Your task to perform on an android device: install app "Venmo" Image 0: 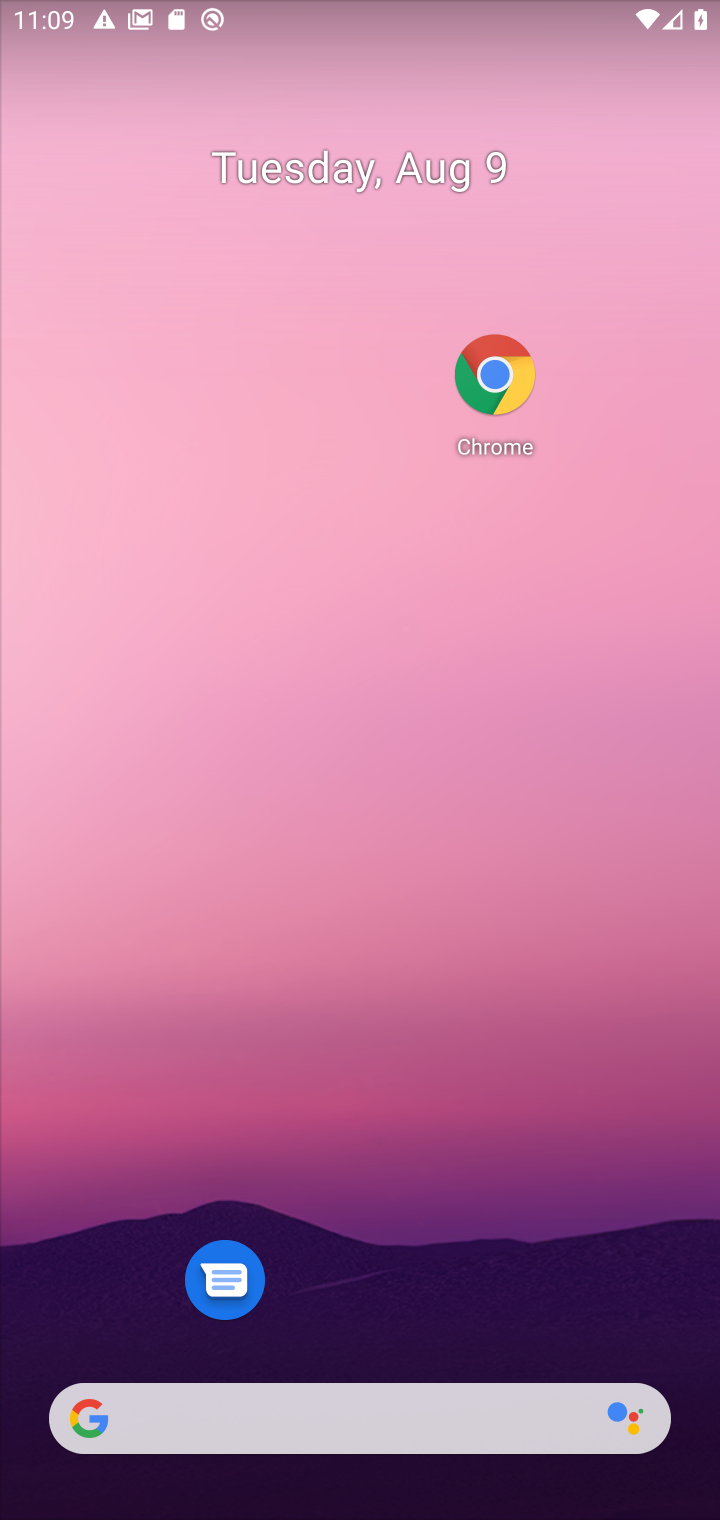
Step 0: drag from (428, 1323) to (704, 2)
Your task to perform on an android device: install app "Venmo" Image 1: 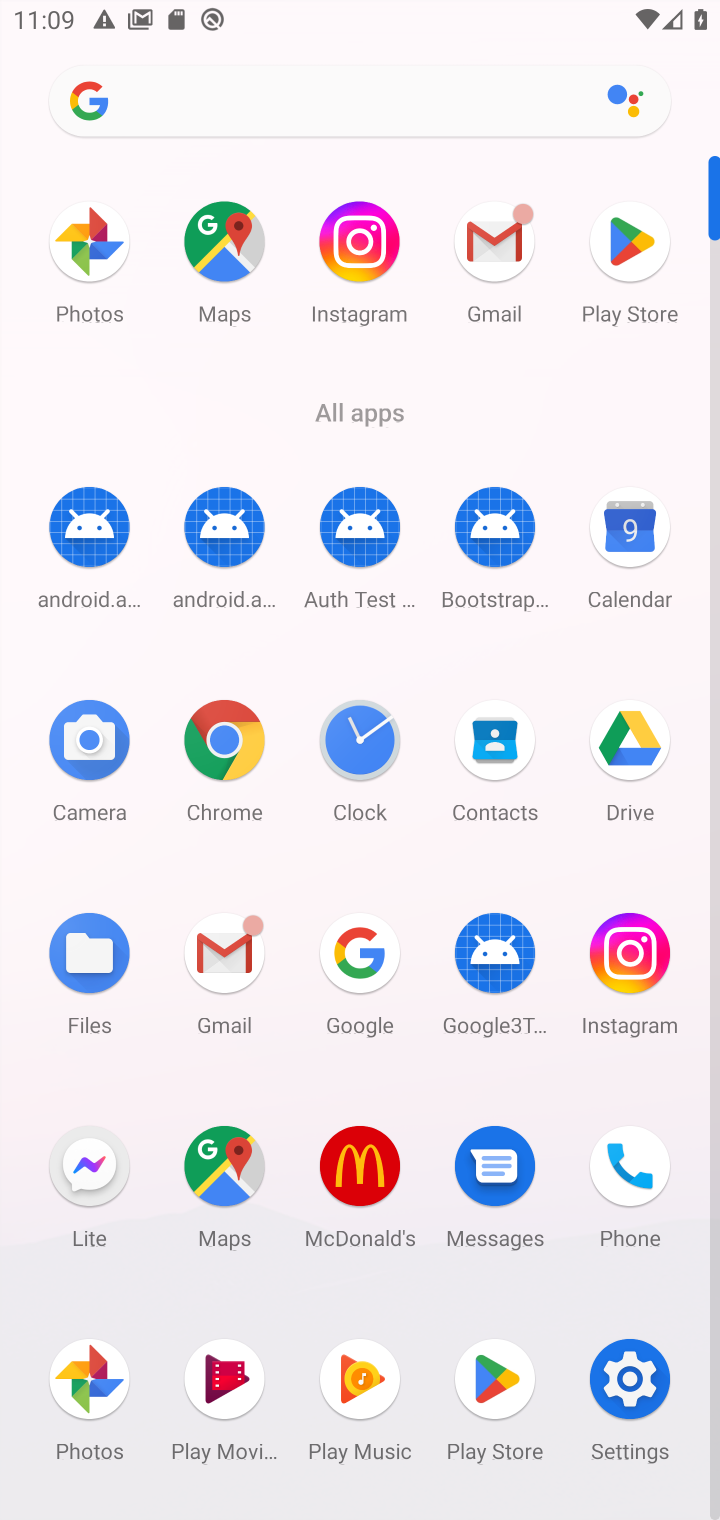
Step 1: click (510, 1366)
Your task to perform on an android device: install app "Venmo" Image 2: 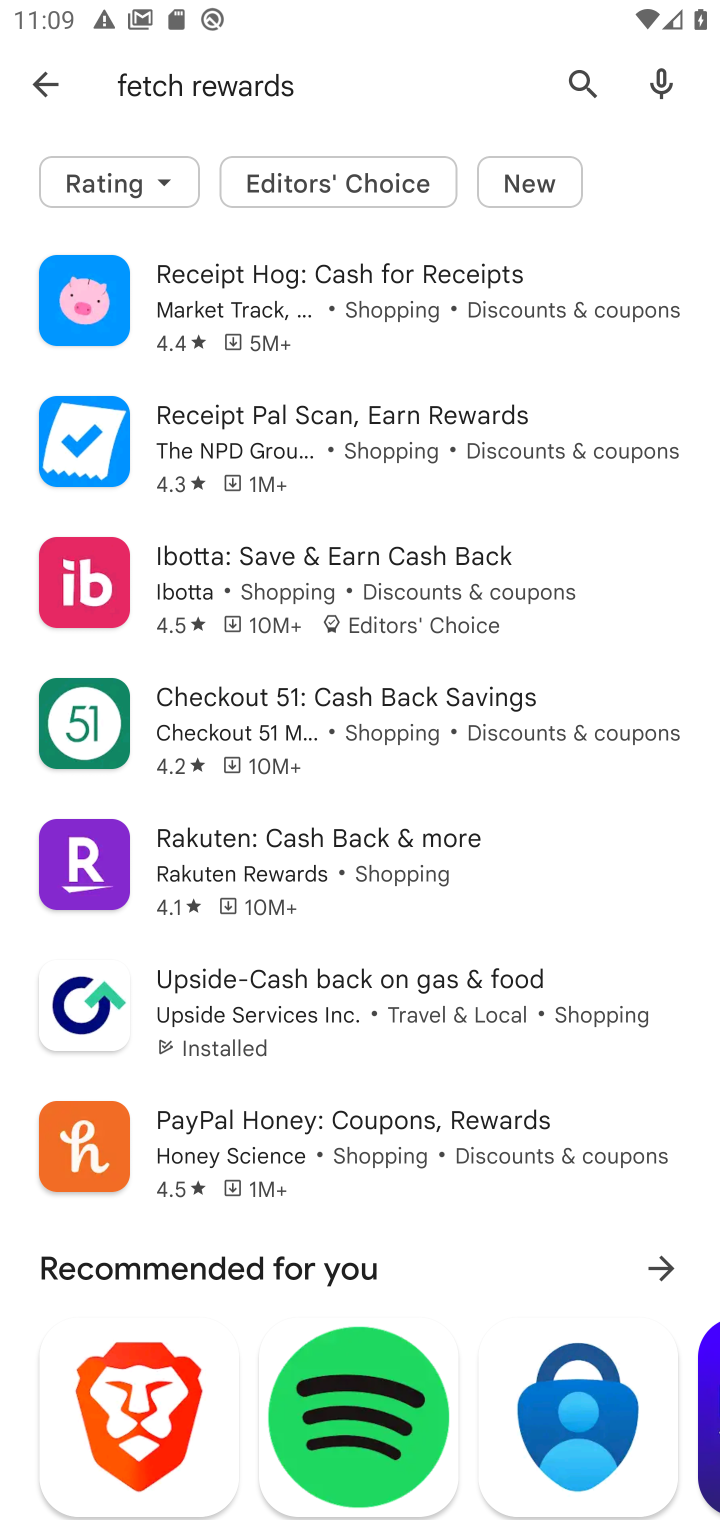
Step 2: click (58, 80)
Your task to perform on an android device: install app "Venmo" Image 3: 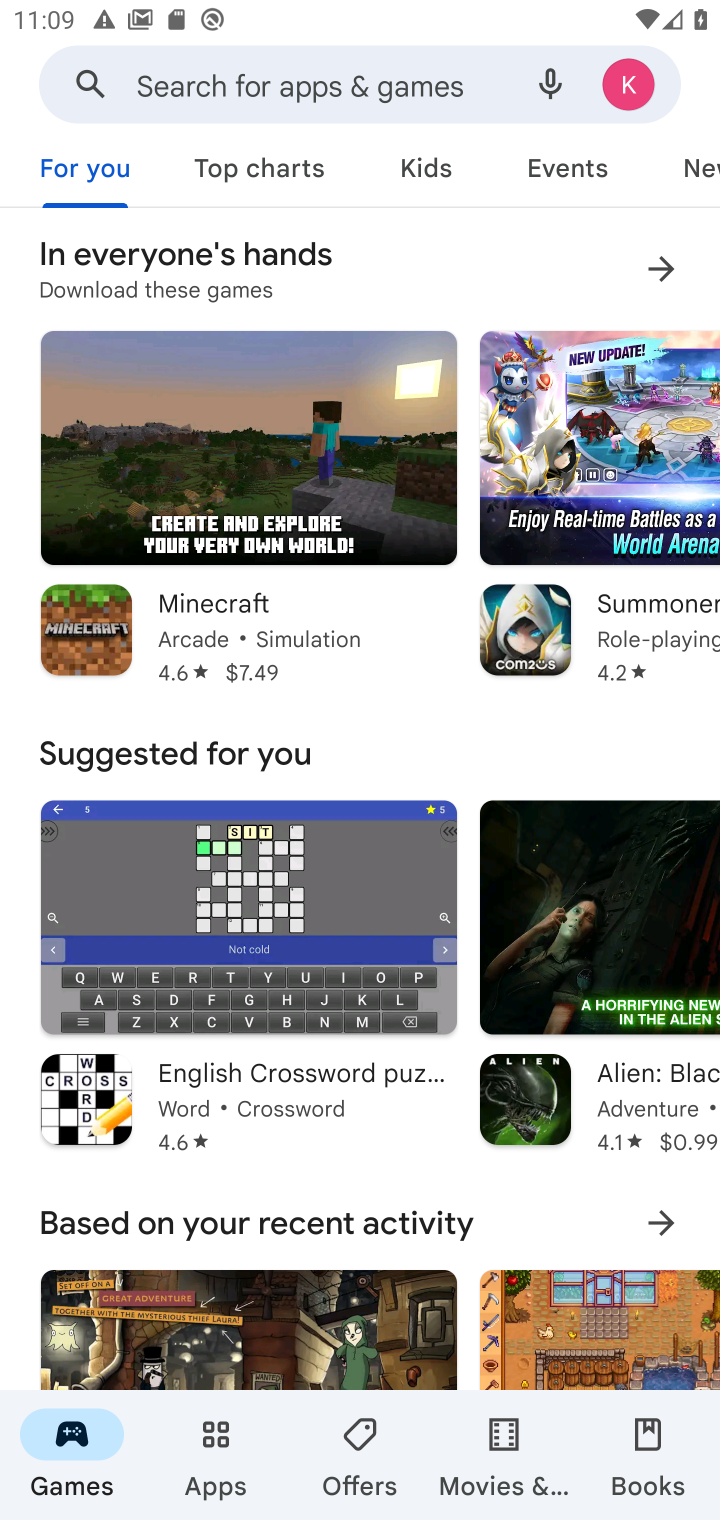
Step 3: click (226, 85)
Your task to perform on an android device: install app "Venmo" Image 4: 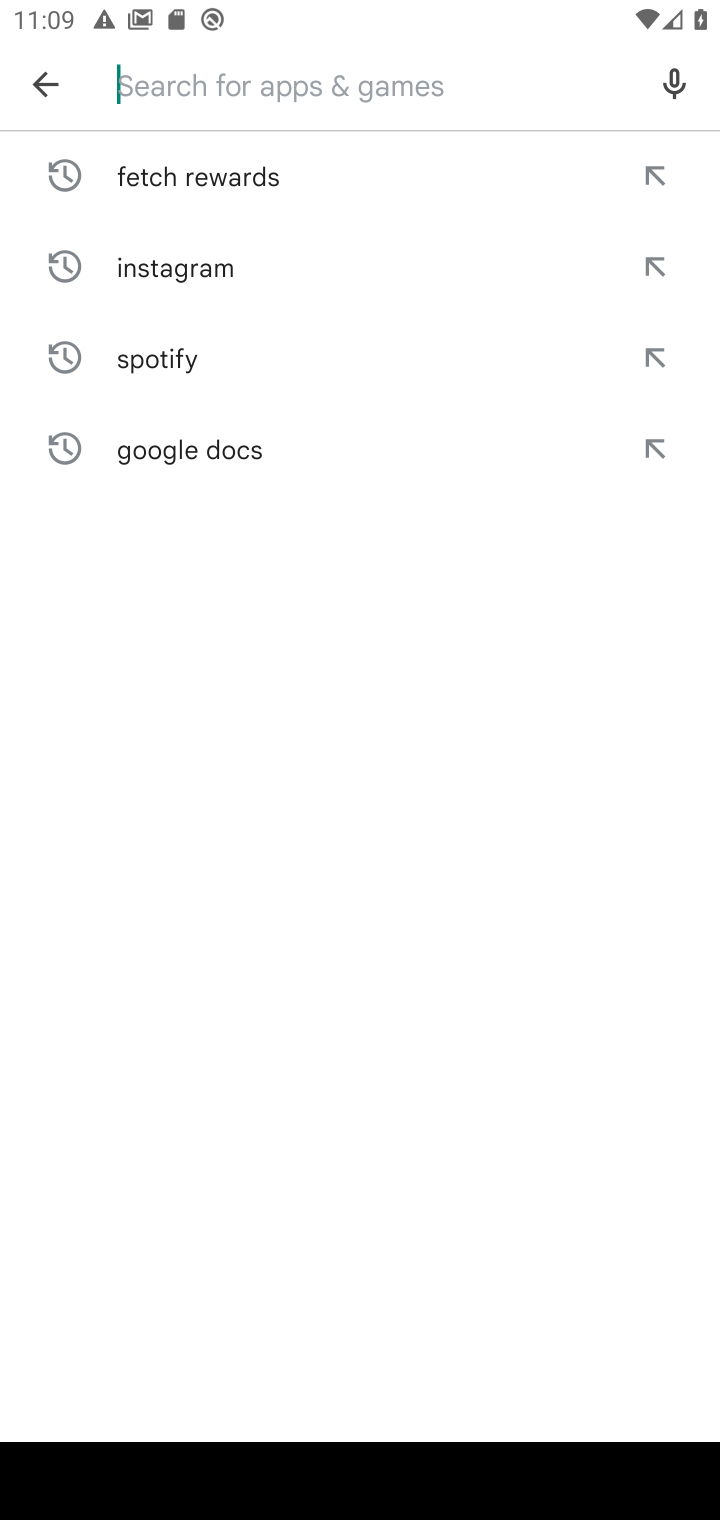
Step 4: type "Venmo"
Your task to perform on an android device: install app "Venmo" Image 5: 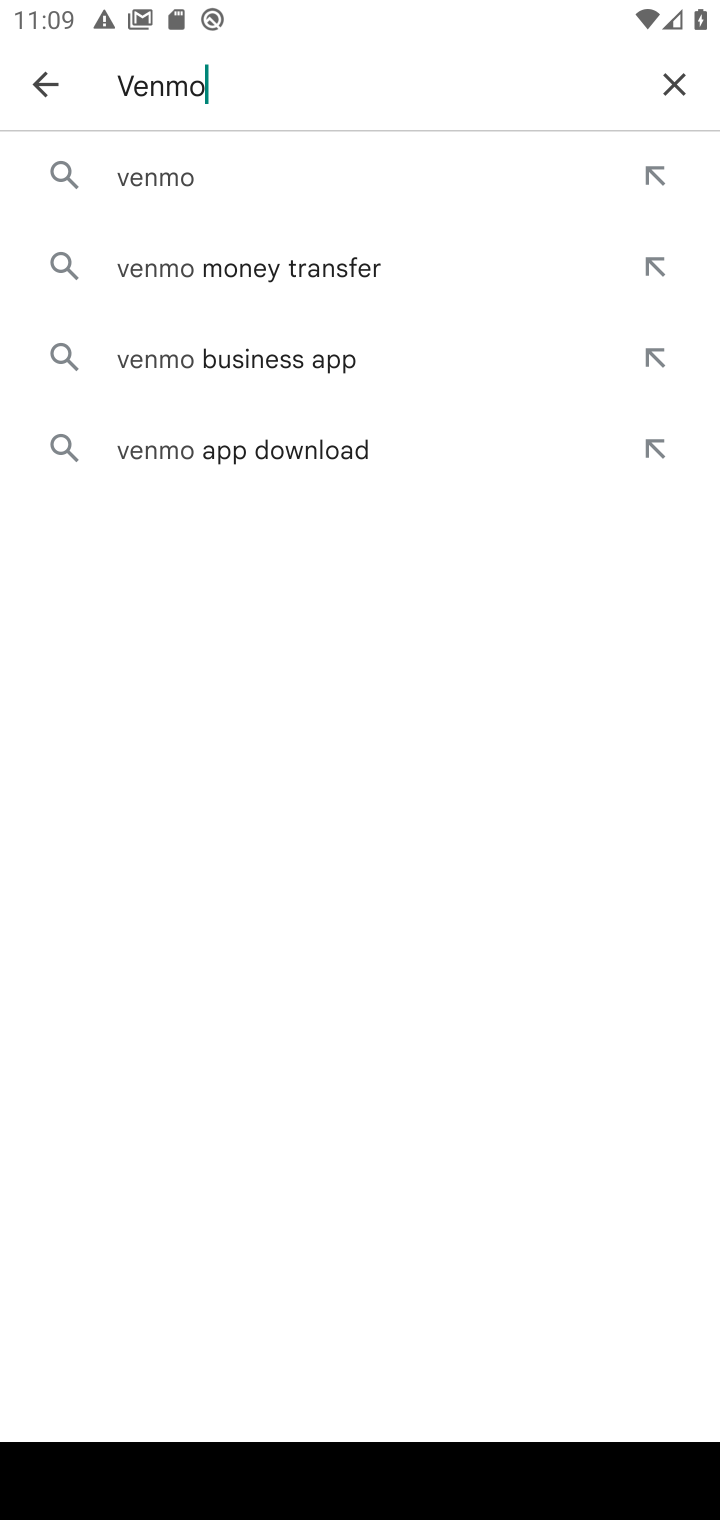
Step 5: type ""
Your task to perform on an android device: install app "Venmo" Image 6: 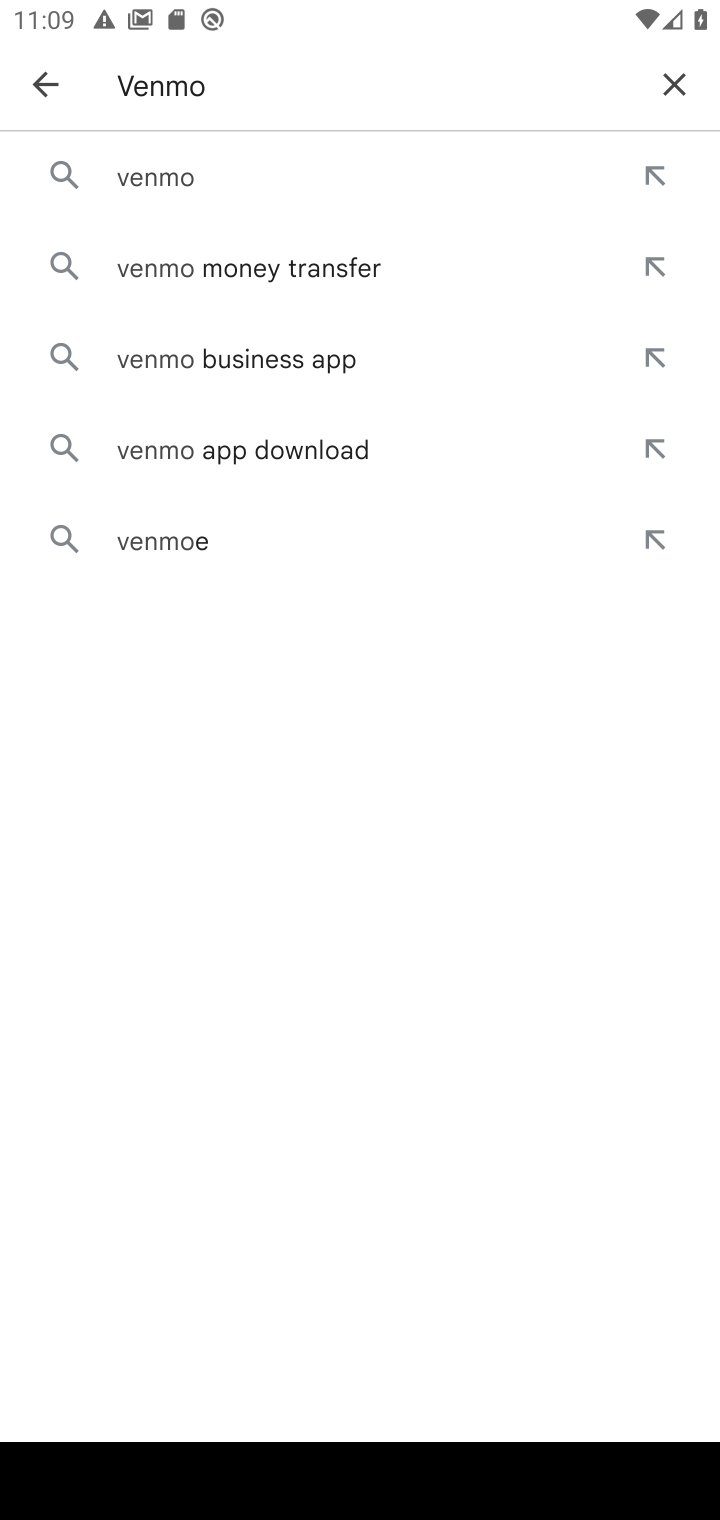
Step 6: click (222, 182)
Your task to perform on an android device: install app "Venmo" Image 7: 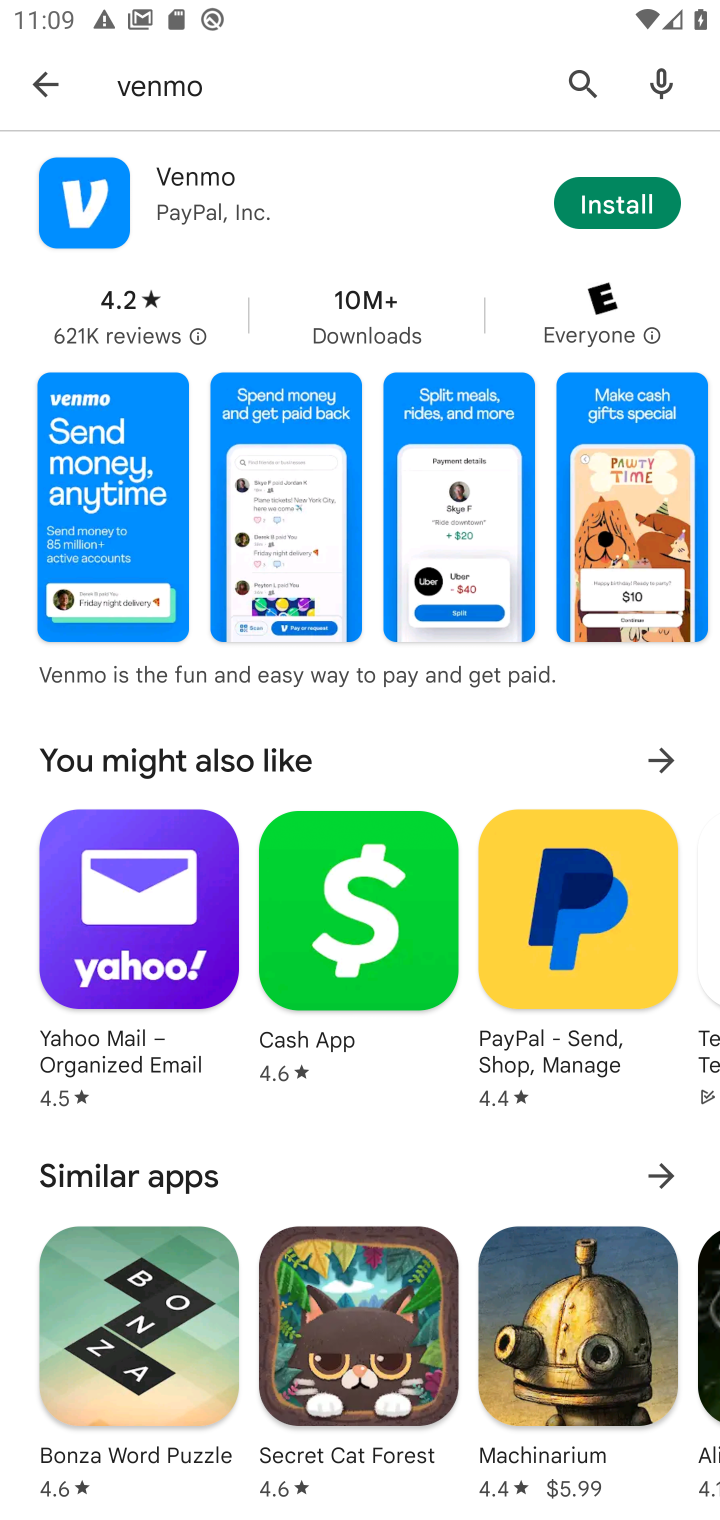
Step 7: click (604, 216)
Your task to perform on an android device: install app "Venmo" Image 8: 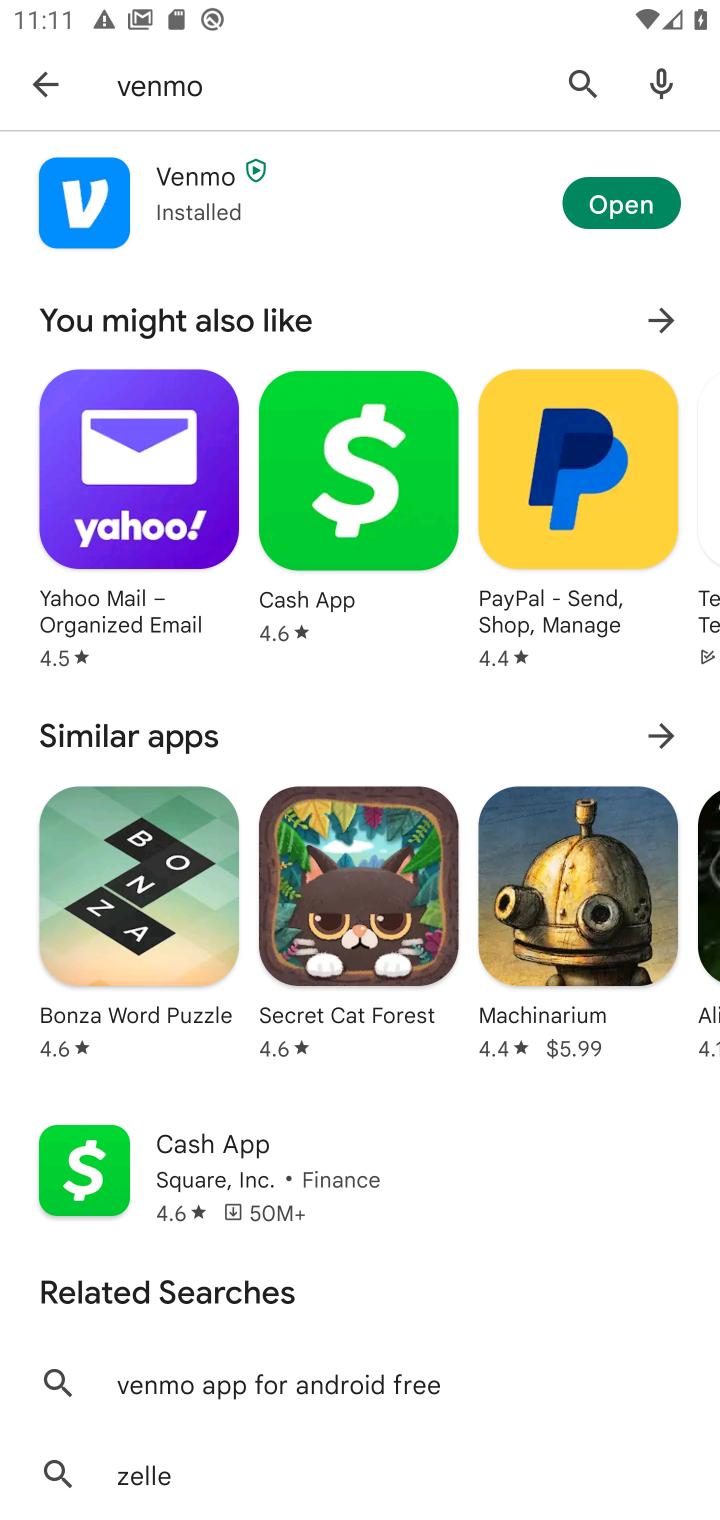
Step 8: click (588, 192)
Your task to perform on an android device: install app "Venmo" Image 9: 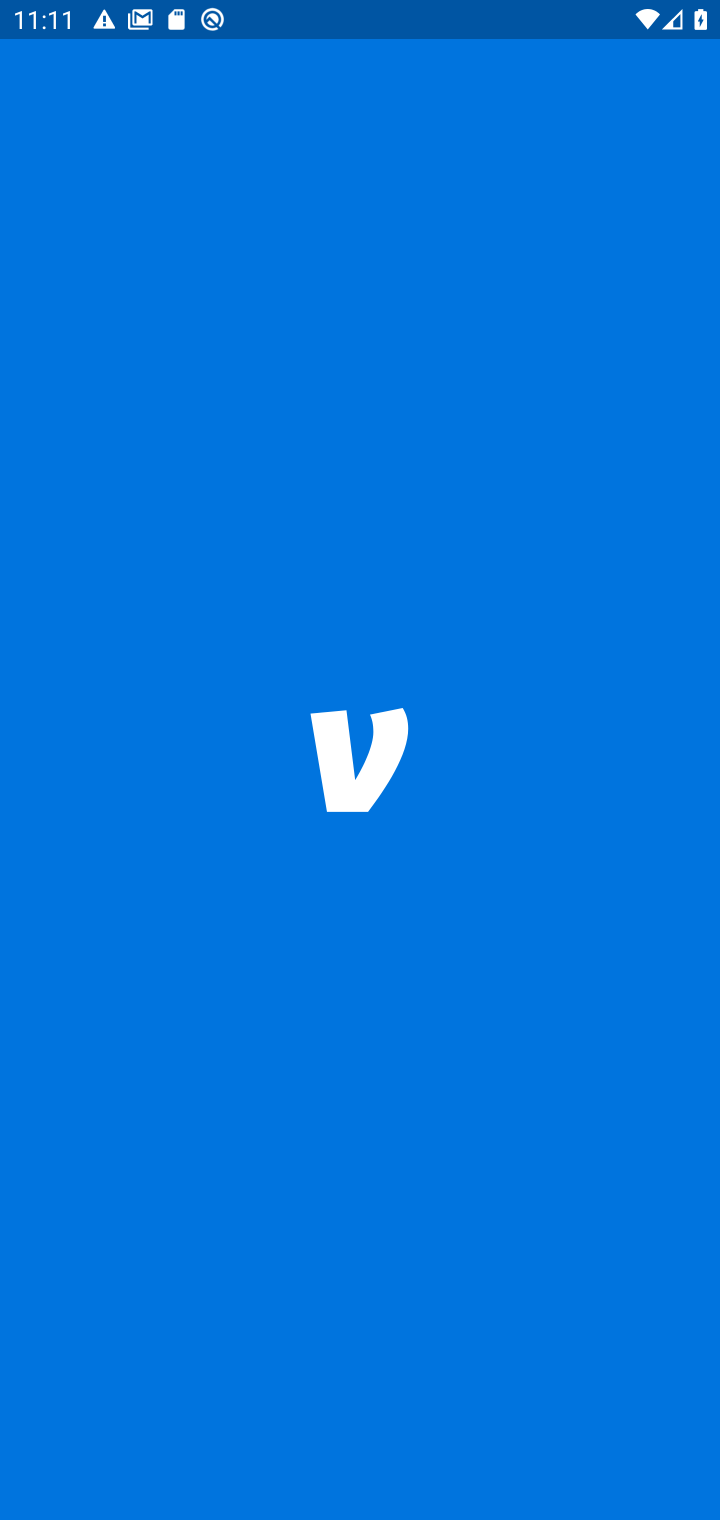
Step 9: task complete